Your task to perform on an android device: open a bookmark in the chrome app Image 0: 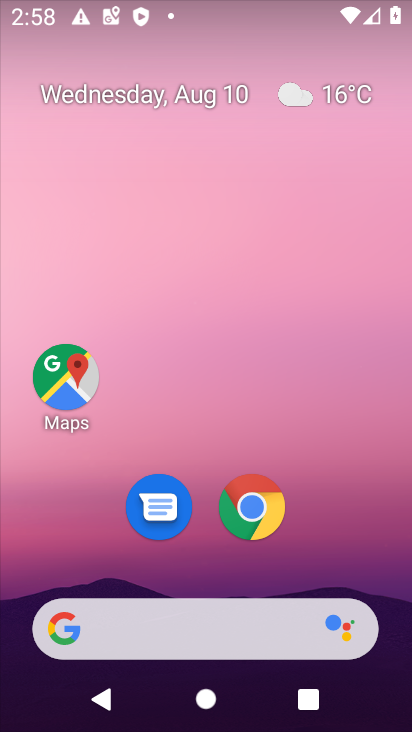
Step 0: drag from (334, 552) to (319, 34)
Your task to perform on an android device: open a bookmark in the chrome app Image 1: 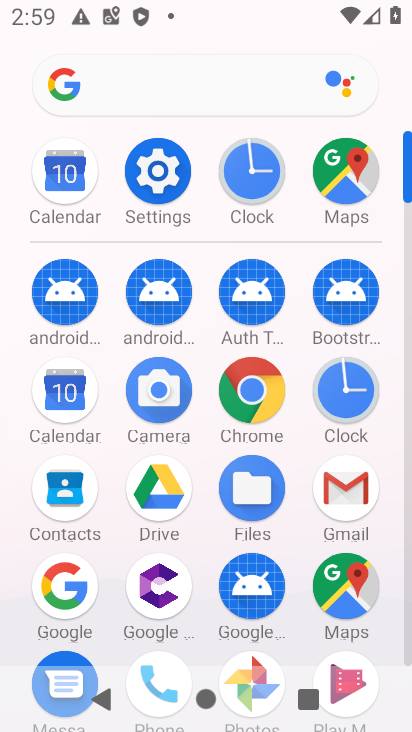
Step 1: click (245, 393)
Your task to perform on an android device: open a bookmark in the chrome app Image 2: 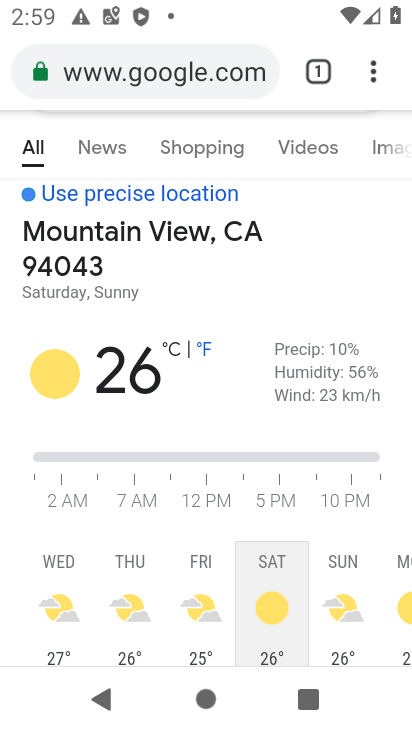
Step 2: drag from (377, 54) to (222, 253)
Your task to perform on an android device: open a bookmark in the chrome app Image 3: 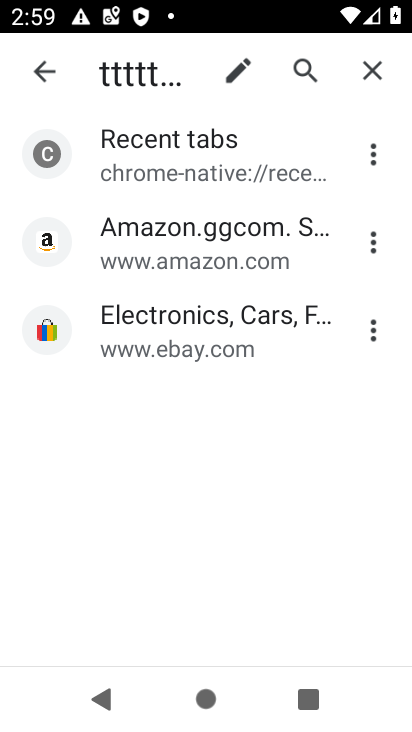
Step 3: click (136, 220)
Your task to perform on an android device: open a bookmark in the chrome app Image 4: 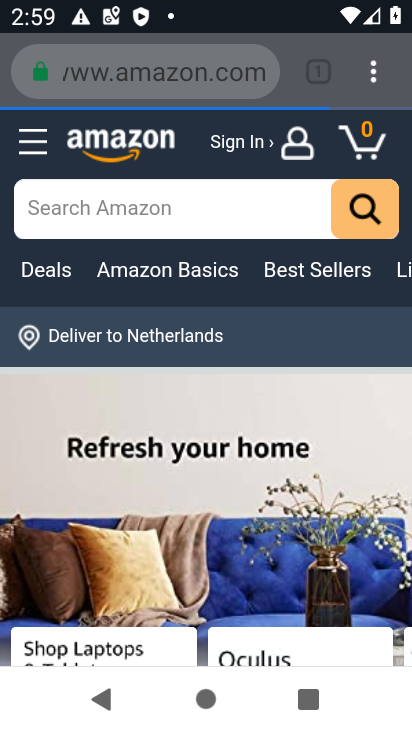
Step 4: task complete